Your task to perform on an android device: open chrome and create a bookmark for the current page Image 0: 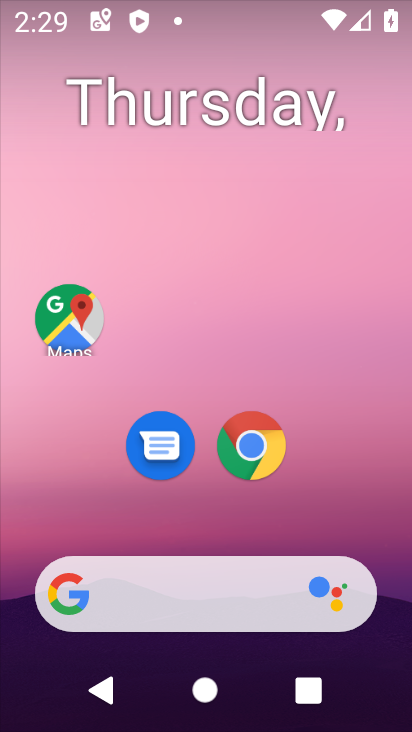
Step 0: press home button
Your task to perform on an android device: open chrome and create a bookmark for the current page Image 1: 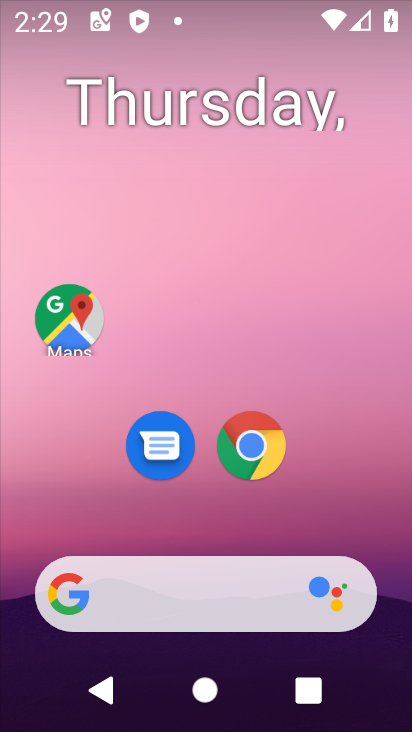
Step 1: click (272, 438)
Your task to perform on an android device: open chrome and create a bookmark for the current page Image 2: 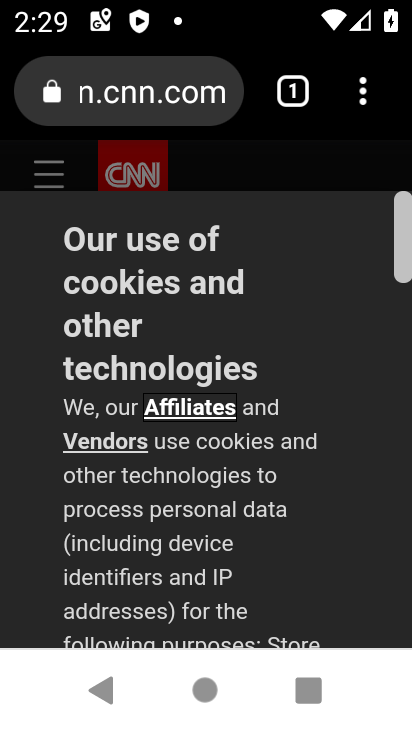
Step 2: click (363, 86)
Your task to perform on an android device: open chrome and create a bookmark for the current page Image 3: 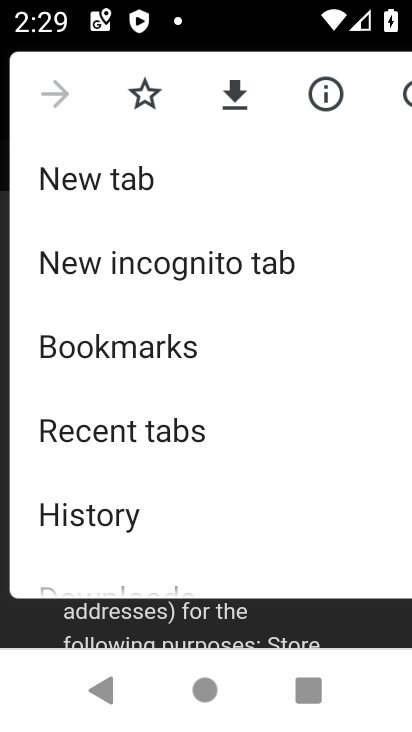
Step 3: click (142, 104)
Your task to perform on an android device: open chrome and create a bookmark for the current page Image 4: 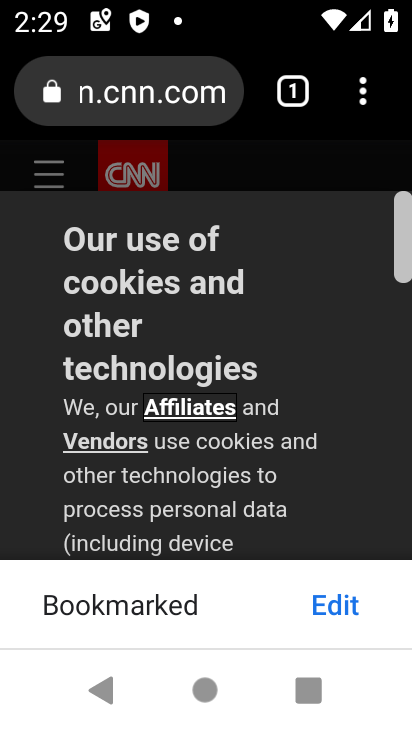
Step 4: task complete